Your task to perform on an android device: Go to accessibility settings Image 0: 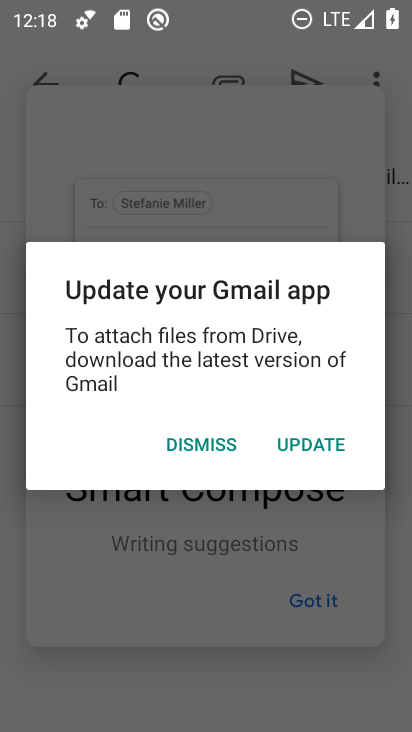
Step 0: press home button
Your task to perform on an android device: Go to accessibility settings Image 1: 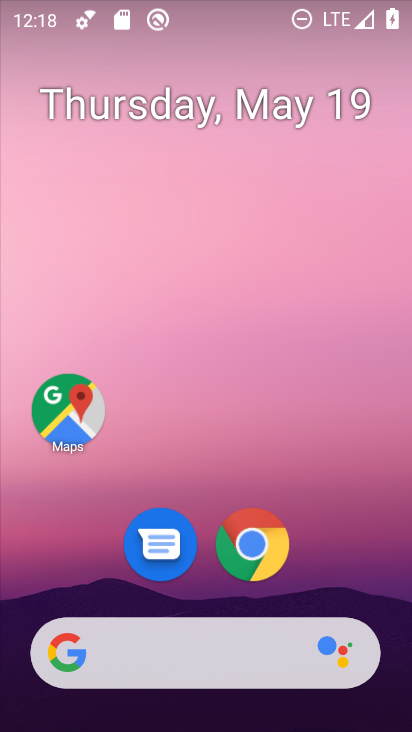
Step 1: drag from (326, 552) to (265, 234)
Your task to perform on an android device: Go to accessibility settings Image 2: 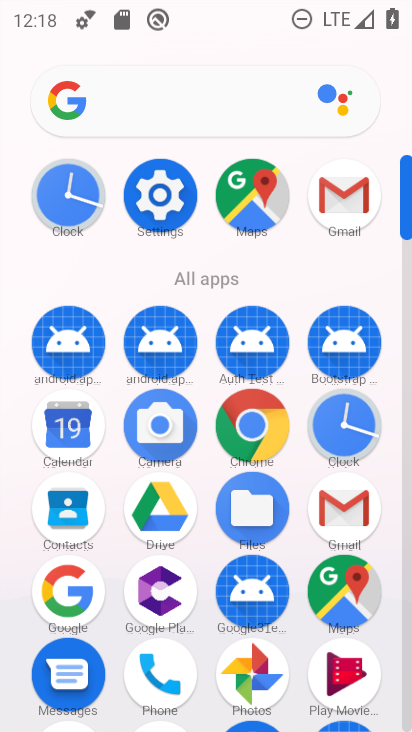
Step 2: click (172, 217)
Your task to perform on an android device: Go to accessibility settings Image 3: 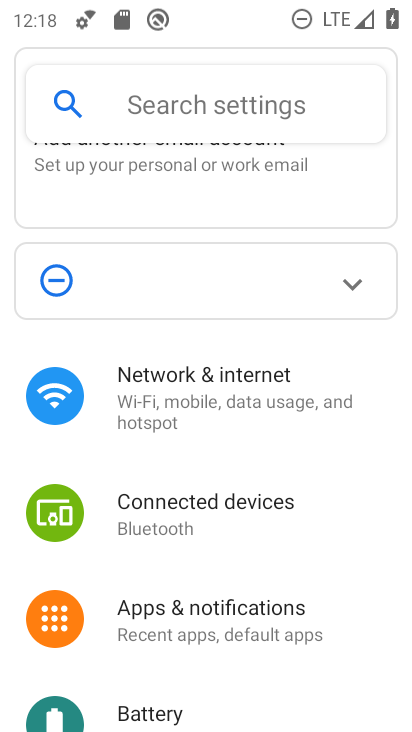
Step 3: drag from (174, 508) to (136, 149)
Your task to perform on an android device: Go to accessibility settings Image 4: 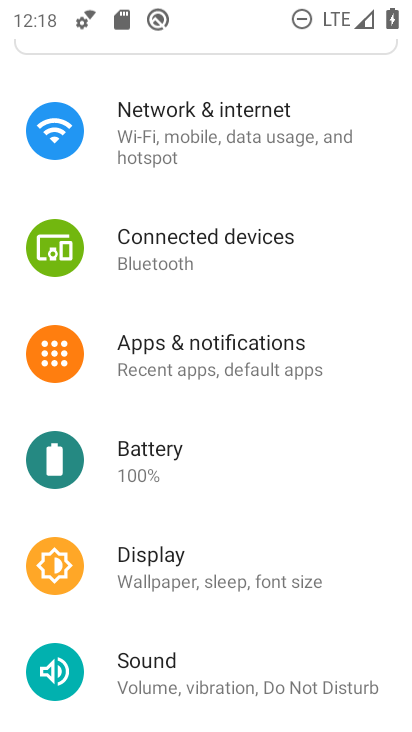
Step 4: drag from (129, 620) to (178, 107)
Your task to perform on an android device: Go to accessibility settings Image 5: 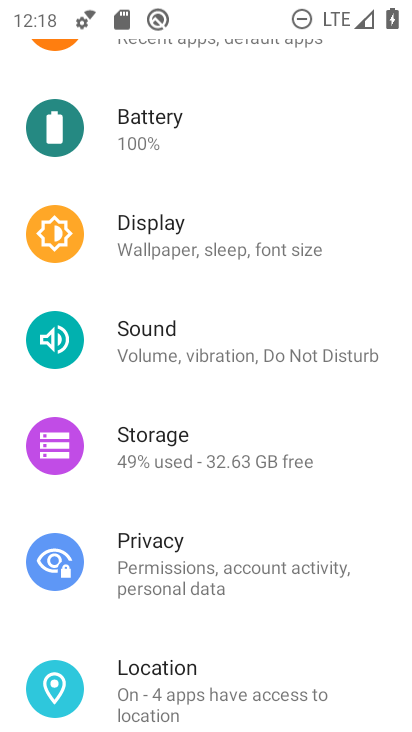
Step 5: drag from (224, 623) to (224, 323)
Your task to perform on an android device: Go to accessibility settings Image 6: 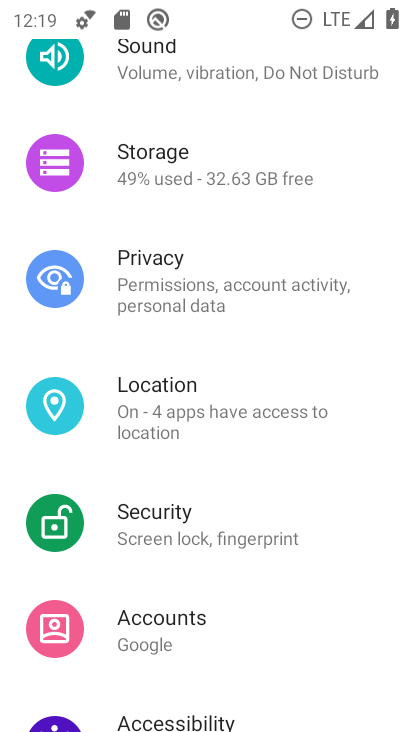
Step 6: click (180, 716)
Your task to perform on an android device: Go to accessibility settings Image 7: 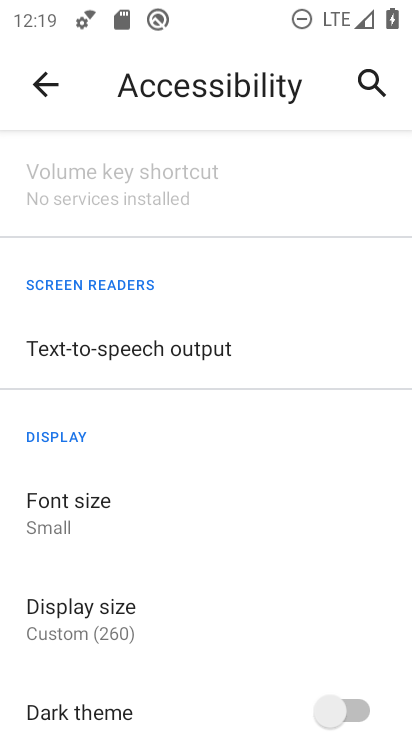
Step 7: task complete